Your task to perform on an android device: Check the weather Image 0: 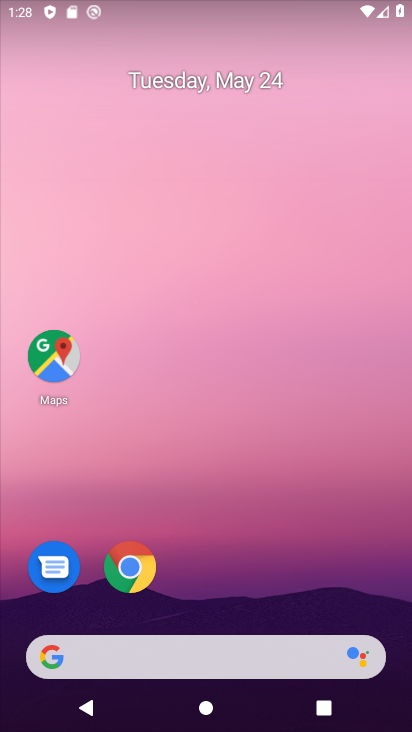
Step 0: drag from (12, 446) to (408, 262)
Your task to perform on an android device: Check the weather Image 1: 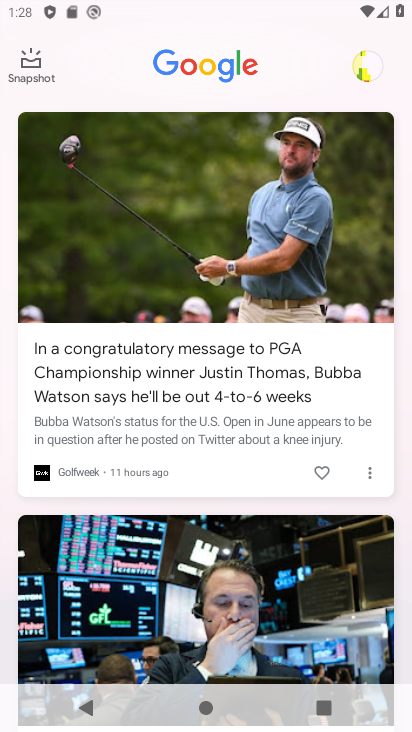
Step 1: press home button
Your task to perform on an android device: Check the weather Image 2: 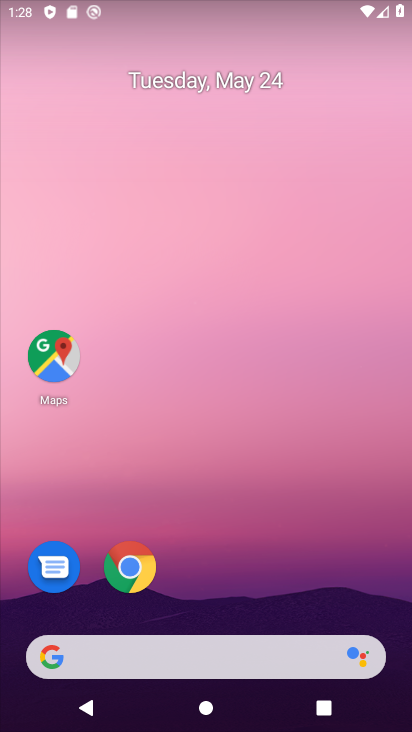
Step 2: click (195, 642)
Your task to perform on an android device: Check the weather Image 3: 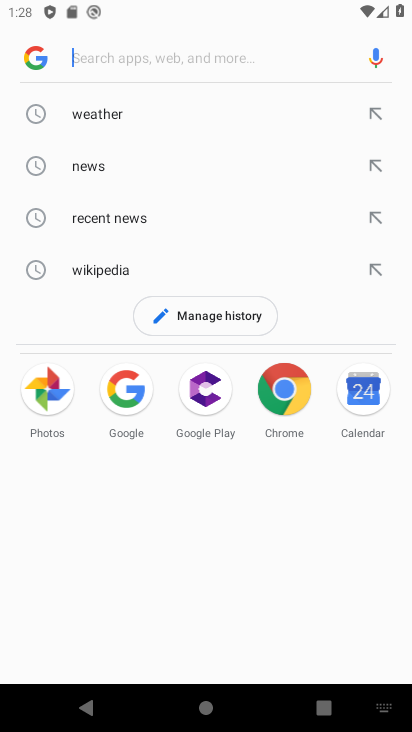
Step 3: click (114, 126)
Your task to perform on an android device: Check the weather Image 4: 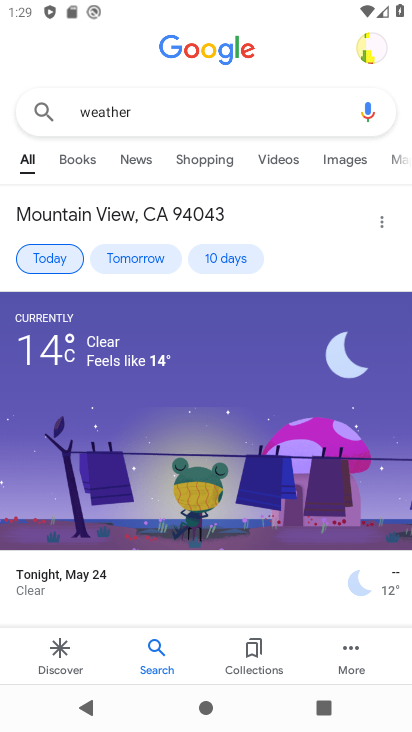
Step 4: drag from (188, 483) to (282, 204)
Your task to perform on an android device: Check the weather Image 5: 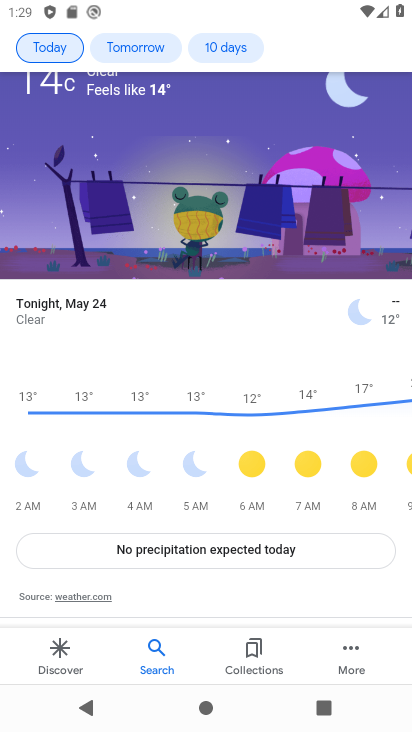
Step 5: click (231, 380)
Your task to perform on an android device: Check the weather Image 6: 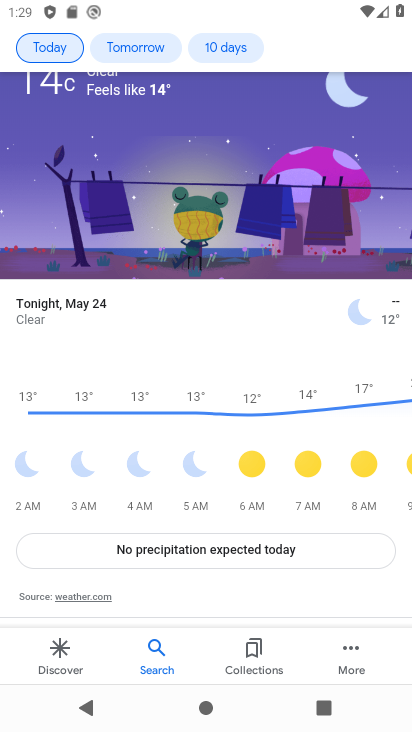
Step 6: drag from (157, 592) to (259, 188)
Your task to perform on an android device: Check the weather Image 7: 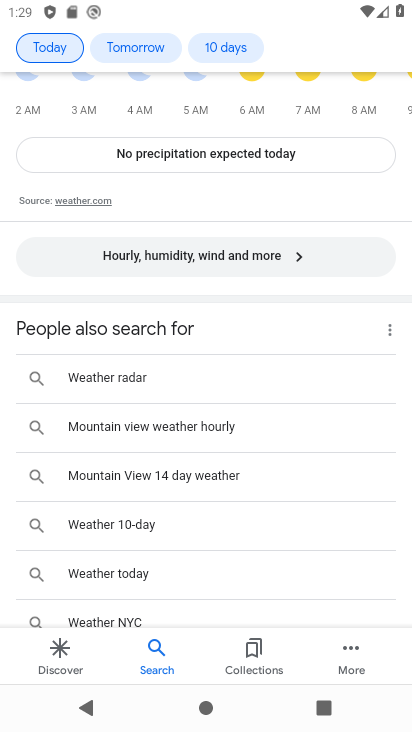
Step 7: drag from (134, 569) to (249, 190)
Your task to perform on an android device: Check the weather Image 8: 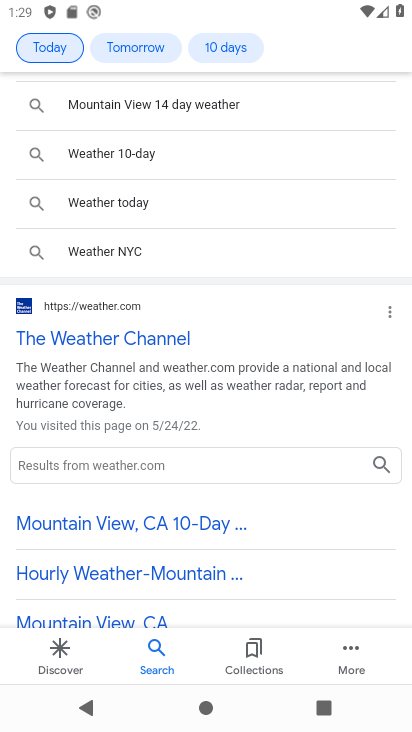
Step 8: click (105, 350)
Your task to perform on an android device: Check the weather Image 9: 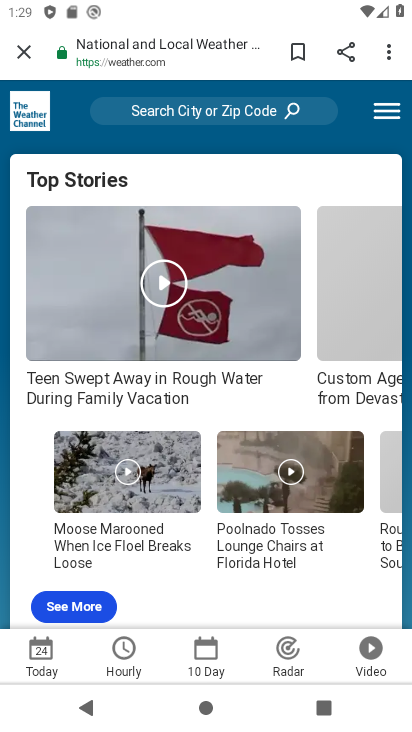
Step 9: drag from (158, 594) to (228, 350)
Your task to perform on an android device: Check the weather Image 10: 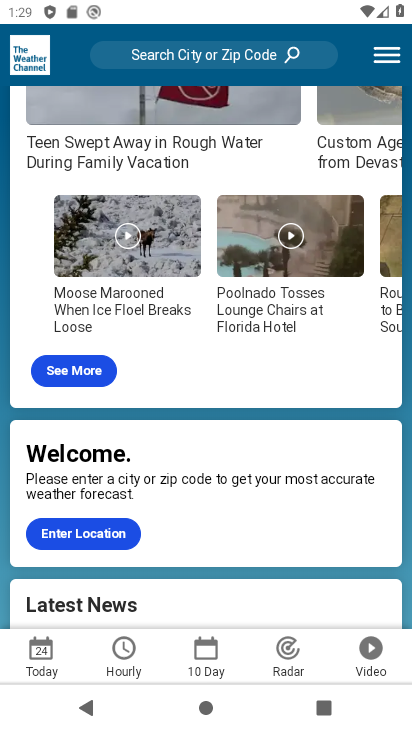
Step 10: click (207, 661)
Your task to perform on an android device: Check the weather Image 11: 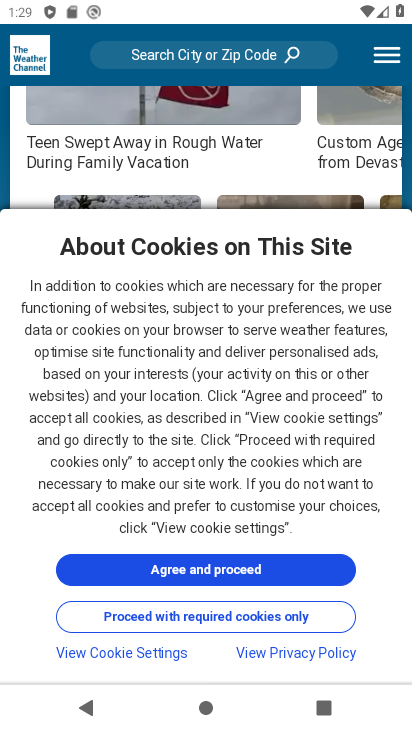
Step 11: click (229, 571)
Your task to perform on an android device: Check the weather Image 12: 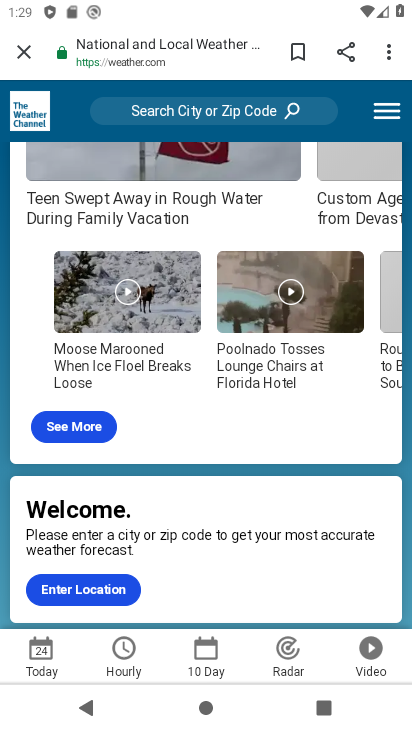
Step 12: click (180, 667)
Your task to perform on an android device: Check the weather Image 13: 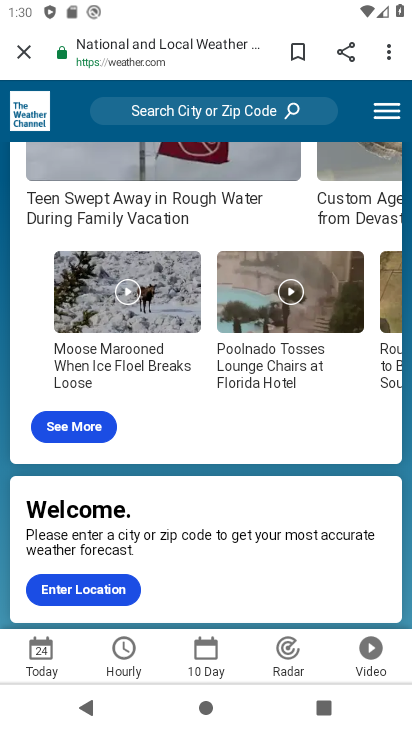
Step 13: click (205, 659)
Your task to perform on an android device: Check the weather Image 14: 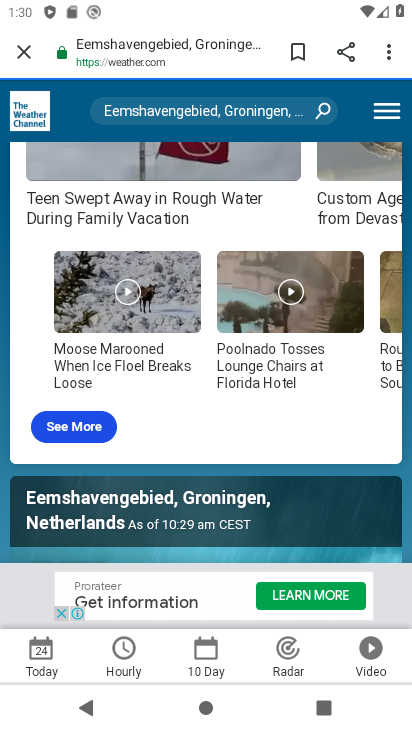
Step 14: click (205, 659)
Your task to perform on an android device: Check the weather Image 15: 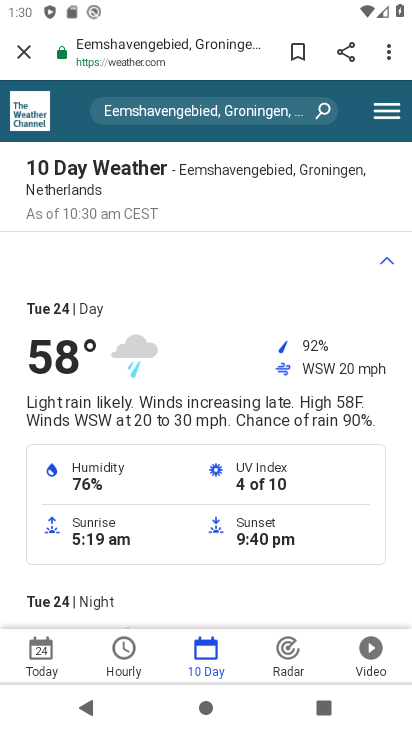
Step 15: task complete